Your task to perform on an android device: Go to Amazon Image 0: 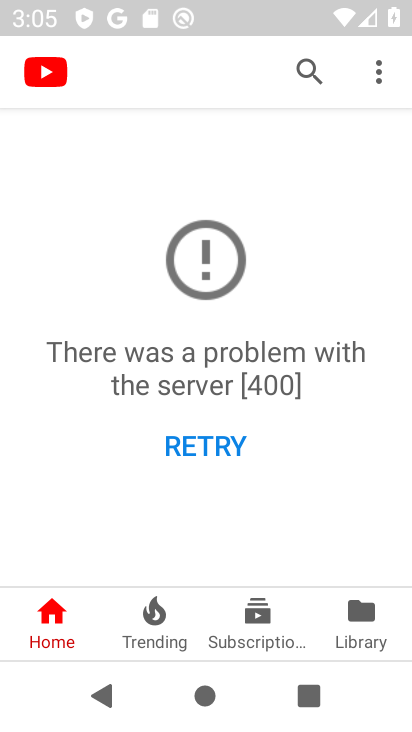
Step 0: press back button
Your task to perform on an android device: Go to Amazon Image 1: 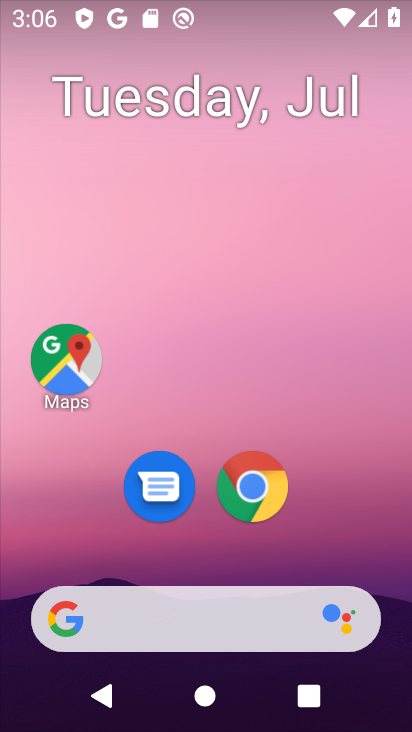
Step 1: click (243, 494)
Your task to perform on an android device: Go to Amazon Image 2: 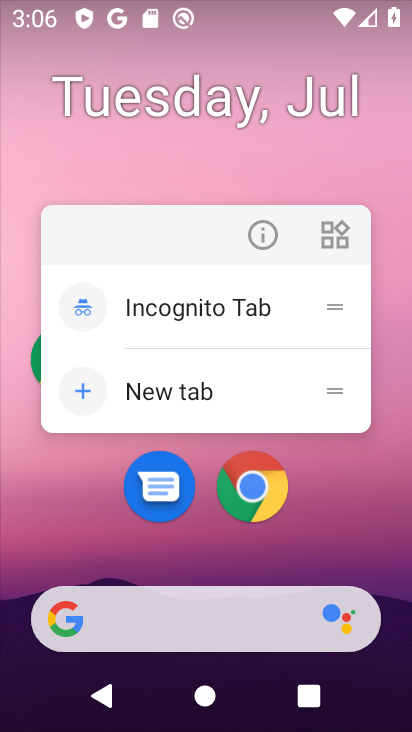
Step 2: click (256, 473)
Your task to perform on an android device: Go to Amazon Image 3: 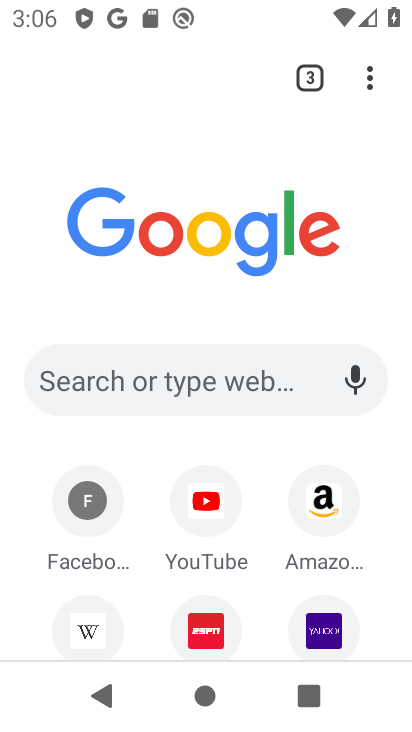
Step 3: click (330, 501)
Your task to perform on an android device: Go to Amazon Image 4: 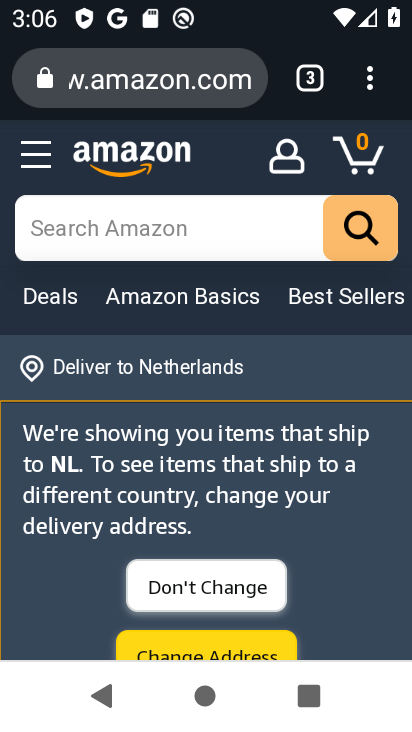
Step 4: task complete